Your task to perform on an android device: toggle sleep mode Image 0: 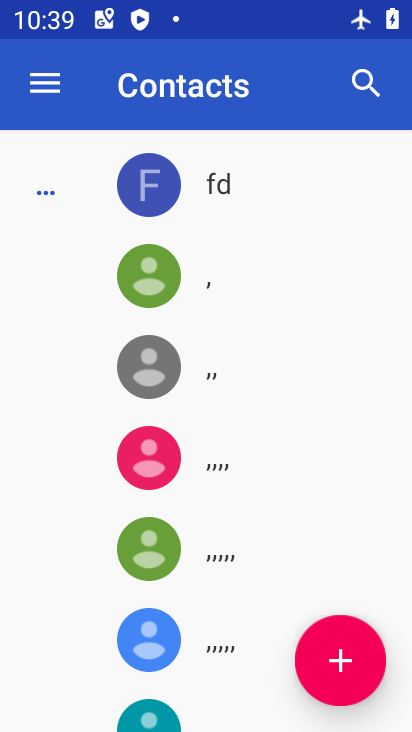
Step 0: press home button
Your task to perform on an android device: toggle sleep mode Image 1: 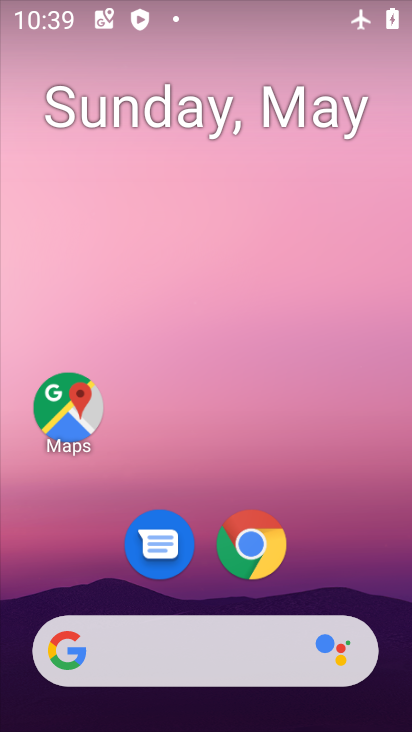
Step 1: drag from (334, 572) to (339, 370)
Your task to perform on an android device: toggle sleep mode Image 2: 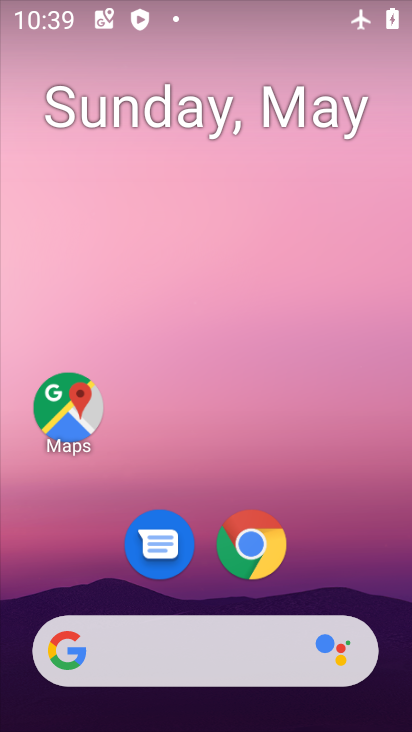
Step 2: drag from (319, 634) to (341, 250)
Your task to perform on an android device: toggle sleep mode Image 3: 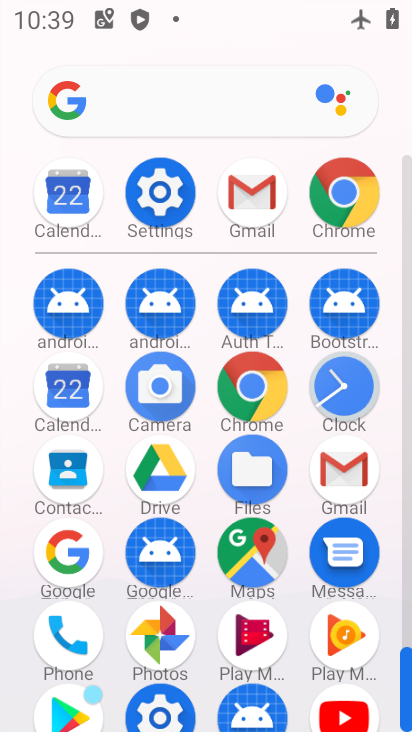
Step 3: click (127, 179)
Your task to perform on an android device: toggle sleep mode Image 4: 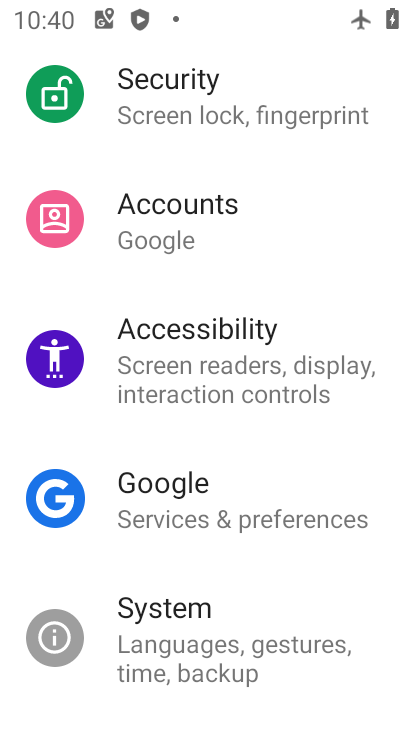
Step 4: task complete